Your task to perform on an android device: Go to internet settings Image 0: 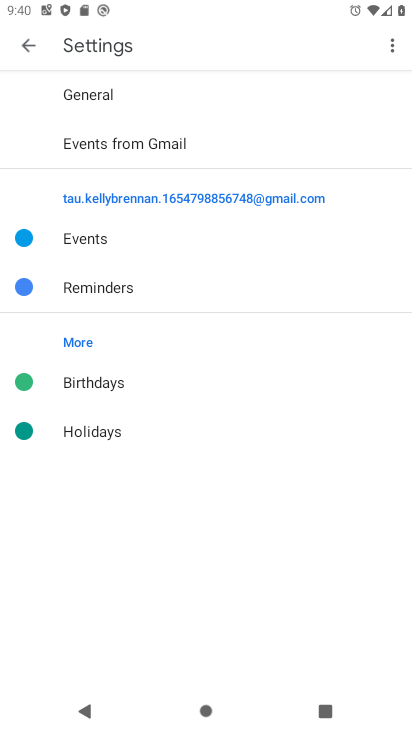
Step 0: press back button
Your task to perform on an android device: Go to internet settings Image 1: 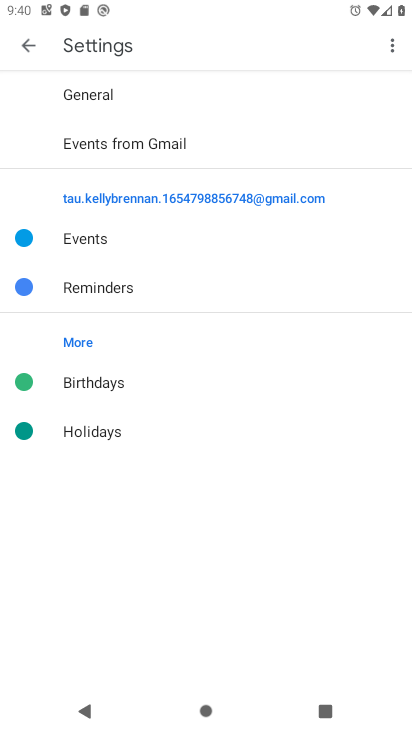
Step 1: press back button
Your task to perform on an android device: Go to internet settings Image 2: 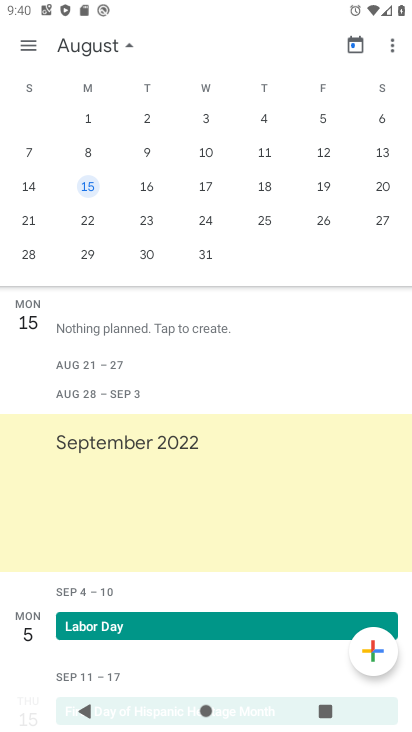
Step 2: press home button
Your task to perform on an android device: Go to internet settings Image 3: 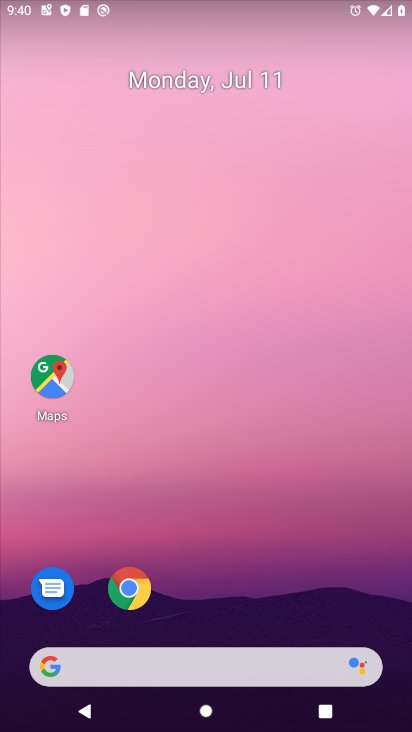
Step 3: drag from (229, 613) to (303, 0)
Your task to perform on an android device: Go to internet settings Image 4: 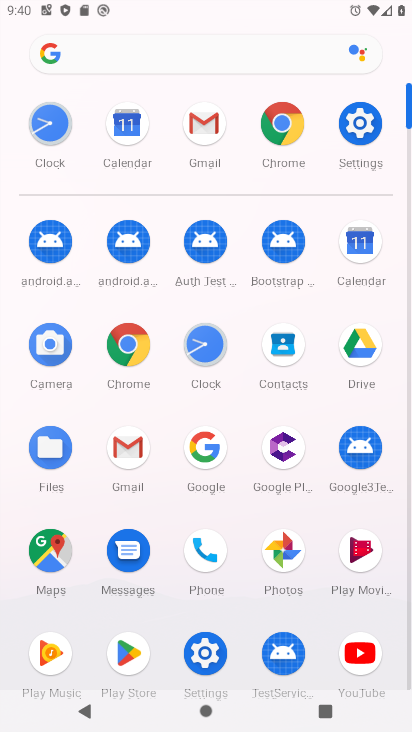
Step 4: click (361, 124)
Your task to perform on an android device: Go to internet settings Image 5: 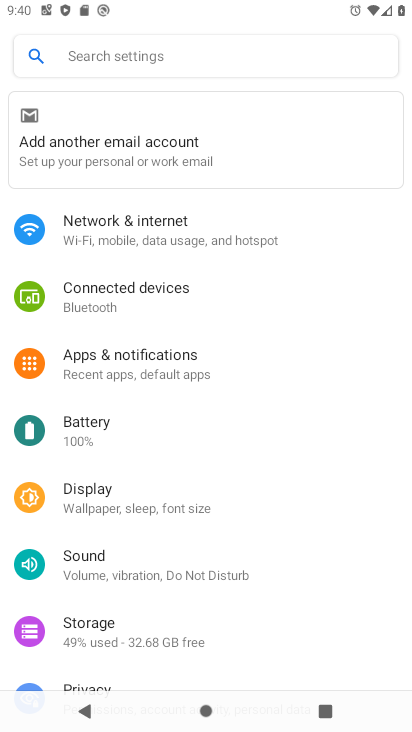
Step 5: click (114, 217)
Your task to perform on an android device: Go to internet settings Image 6: 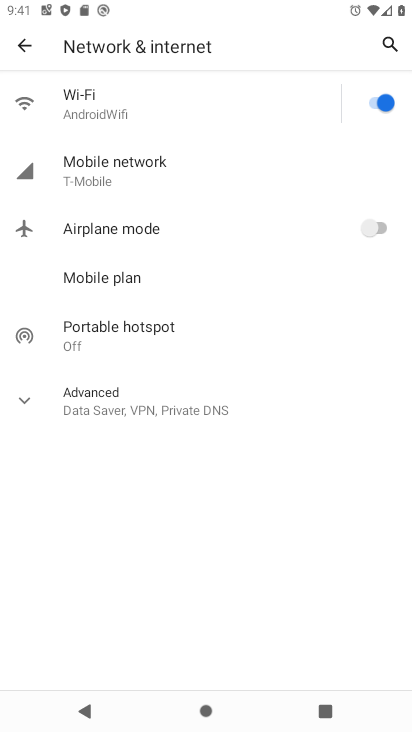
Step 6: task complete